Your task to perform on an android device: Show me the alarms in the clock app Image 0: 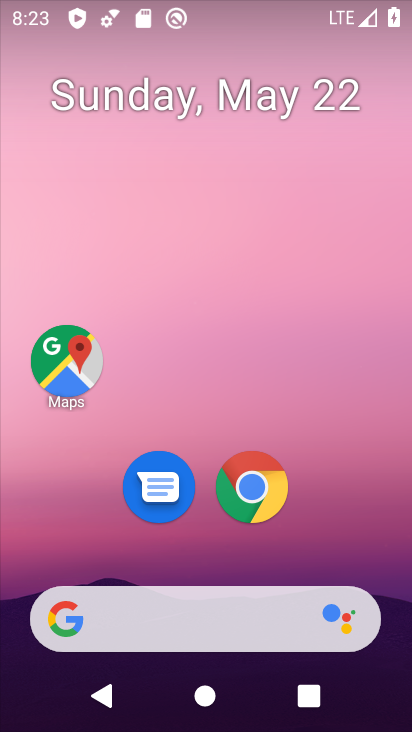
Step 0: drag from (305, 531) to (330, 96)
Your task to perform on an android device: Show me the alarms in the clock app Image 1: 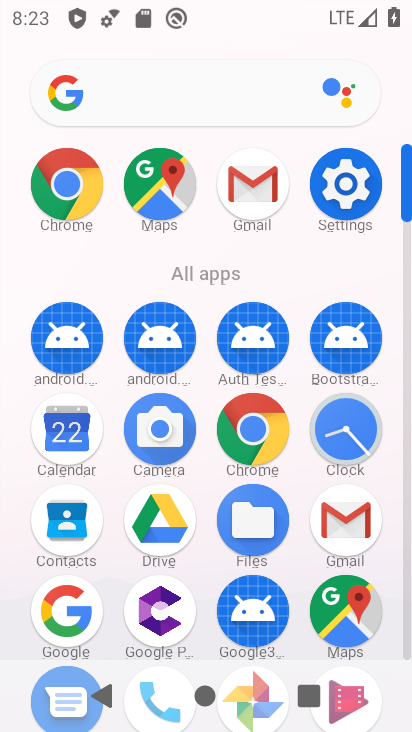
Step 1: click (354, 445)
Your task to perform on an android device: Show me the alarms in the clock app Image 2: 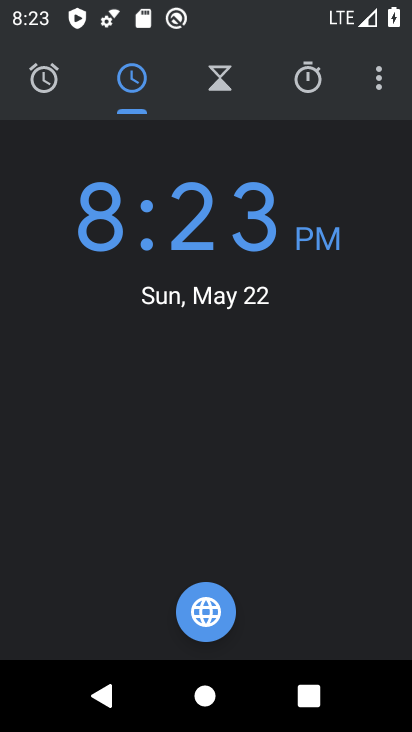
Step 2: click (63, 80)
Your task to perform on an android device: Show me the alarms in the clock app Image 3: 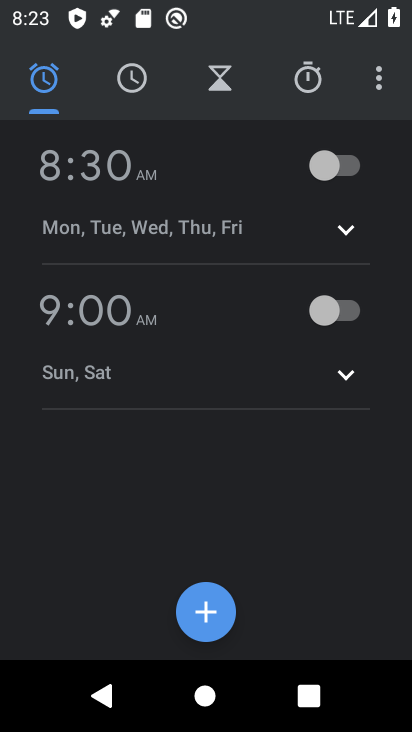
Step 3: click (177, 216)
Your task to perform on an android device: Show me the alarms in the clock app Image 4: 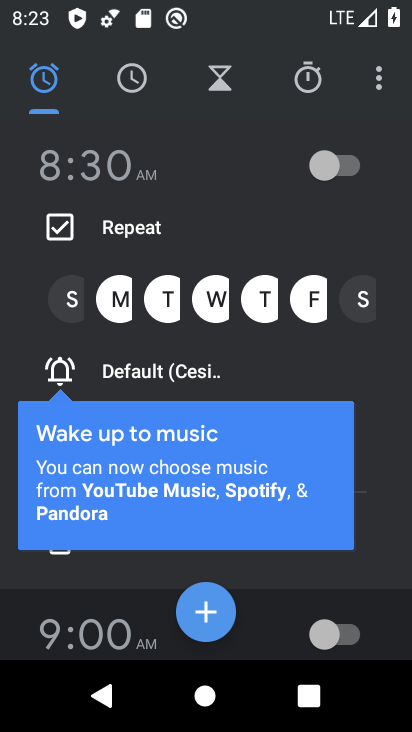
Step 4: task complete